Your task to perform on an android device: Open my contact list Image 0: 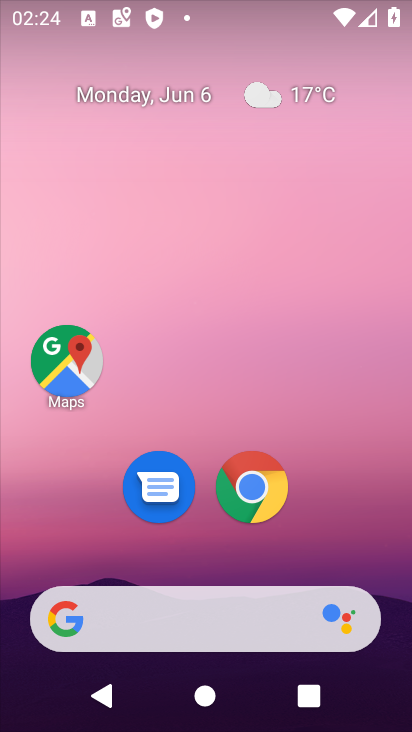
Step 0: drag from (407, 607) to (304, 143)
Your task to perform on an android device: Open my contact list Image 1: 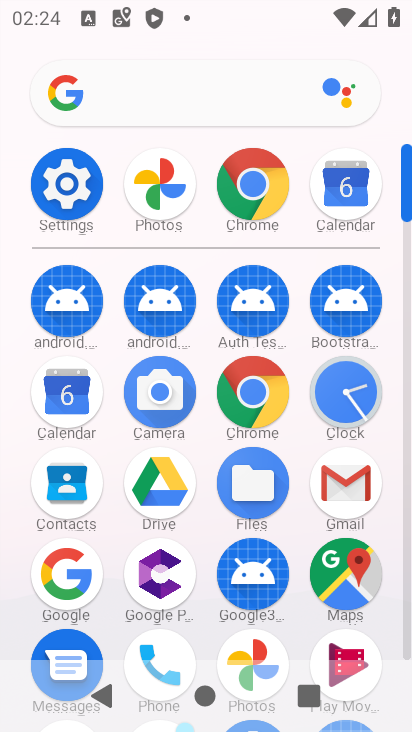
Step 1: click (63, 482)
Your task to perform on an android device: Open my contact list Image 2: 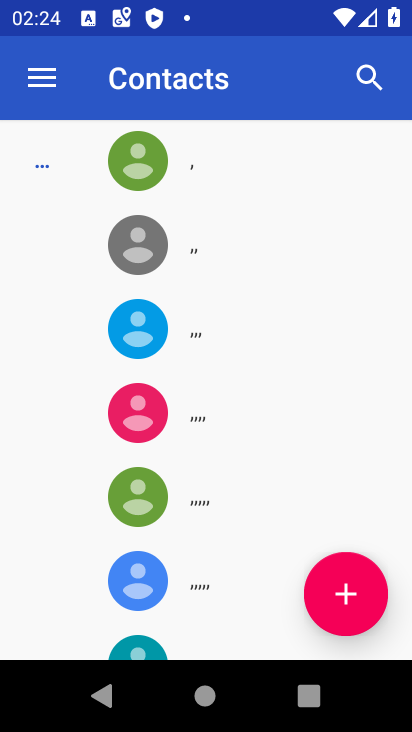
Step 2: task complete